Your task to perform on an android device: change the clock display to digital Image 0: 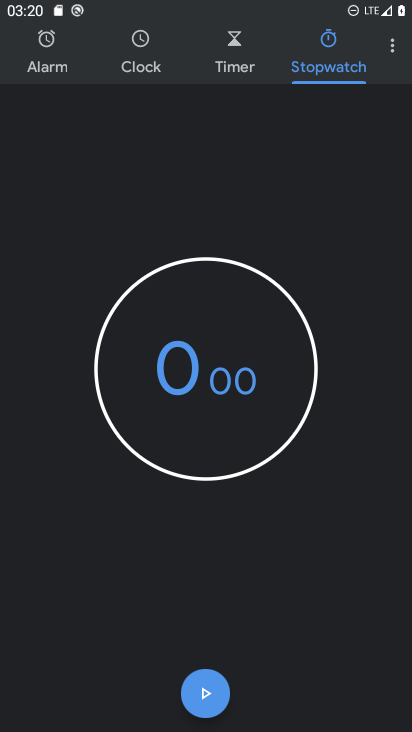
Step 0: click (390, 52)
Your task to perform on an android device: change the clock display to digital Image 1: 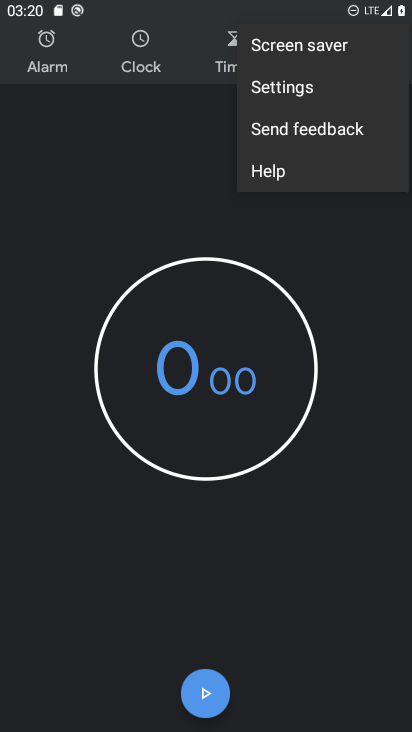
Step 1: click (275, 77)
Your task to perform on an android device: change the clock display to digital Image 2: 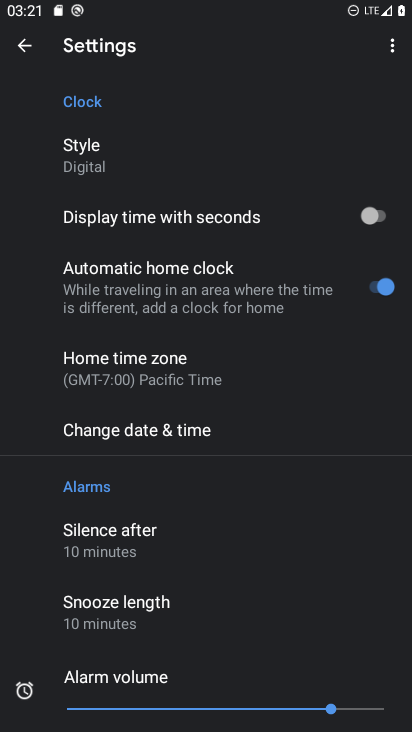
Step 2: task complete